Your task to perform on an android device: Open Google Chrome and open the bookmarks view Image 0: 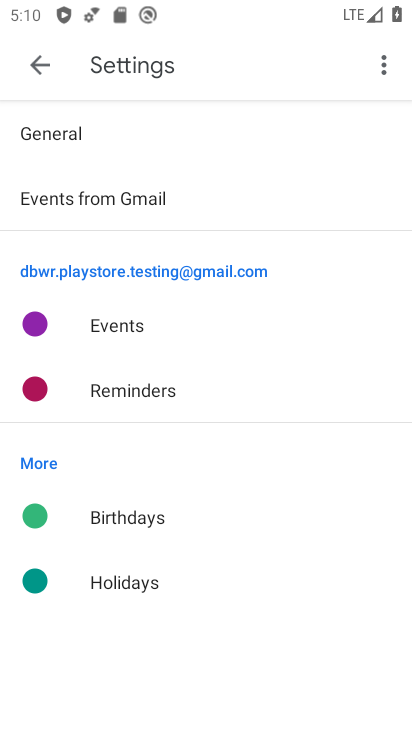
Step 0: press home button
Your task to perform on an android device: Open Google Chrome and open the bookmarks view Image 1: 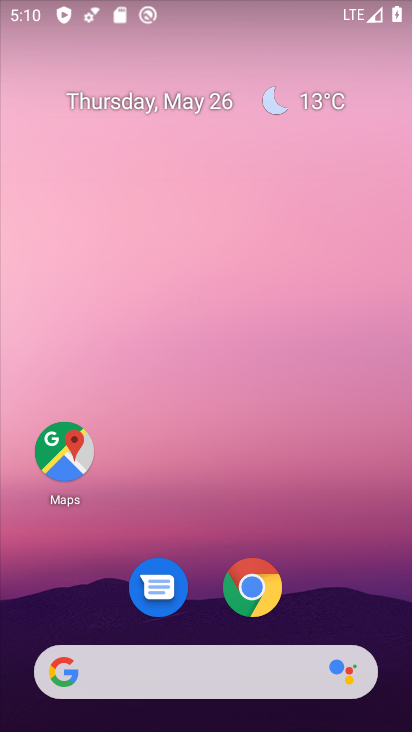
Step 1: drag from (226, 728) to (224, 93)
Your task to perform on an android device: Open Google Chrome and open the bookmarks view Image 2: 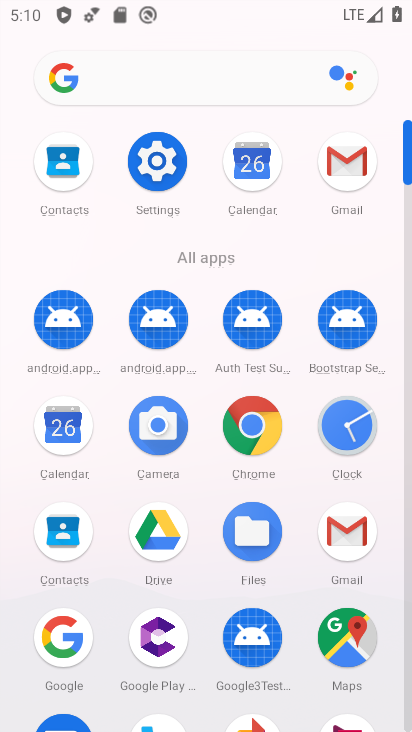
Step 2: click (249, 435)
Your task to perform on an android device: Open Google Chrome and open the bookmarks view Image 3: 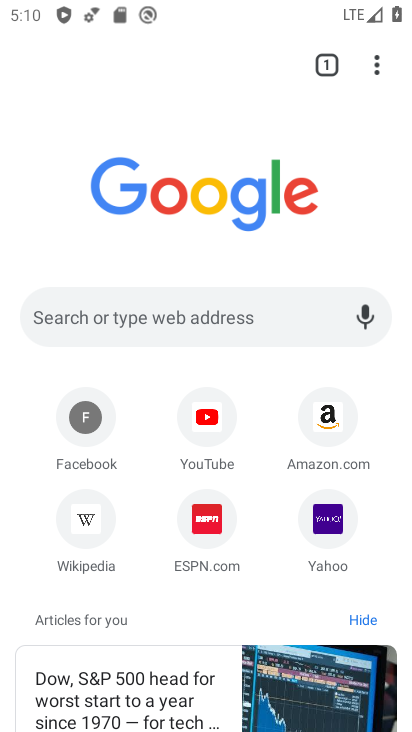
Step 3: click (378, 70)
Your task to perform on an android device: Open Google Chrome and open the bookmarks view Image 4: 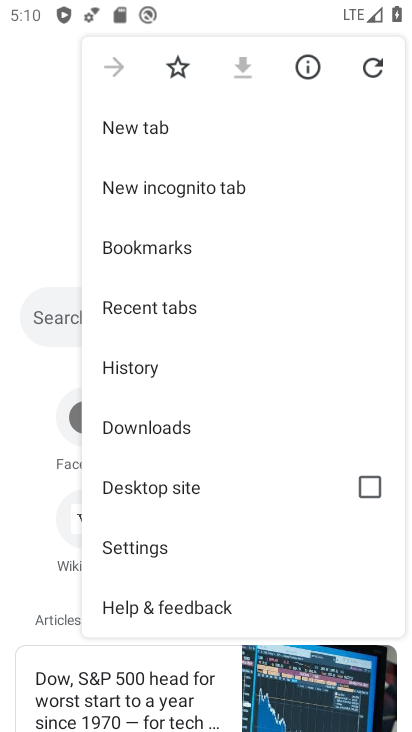
Step 4: click (156, 245)
Your task to perform on an android device: Open Google Chrome and open the bookmarks view Image 5: 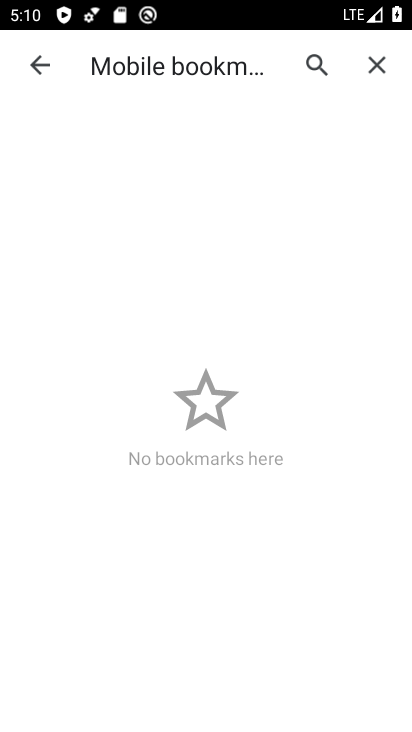
Step 5: task complete